Your task to perform on an android device: Open the calendar app, open the side menu, and click the "Day" option Image 0: 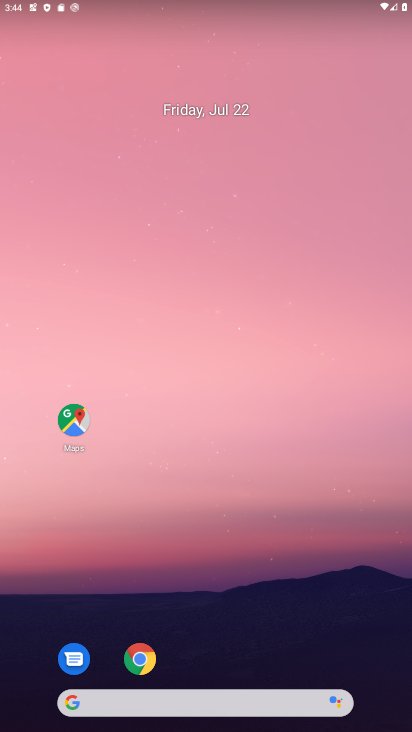
Step 0: click (203, 124)
Your task to perform on an android device: Open the calendar app, open the side menu, and click the "Day" option Image 1: 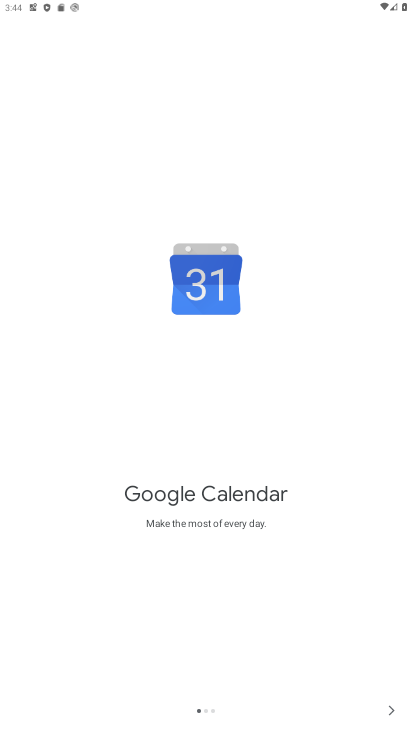
Step 1: click (395, 713)
Your task to perform on an android device: Open the calendar app, open the side menu, and click the "Day" option Image 2: 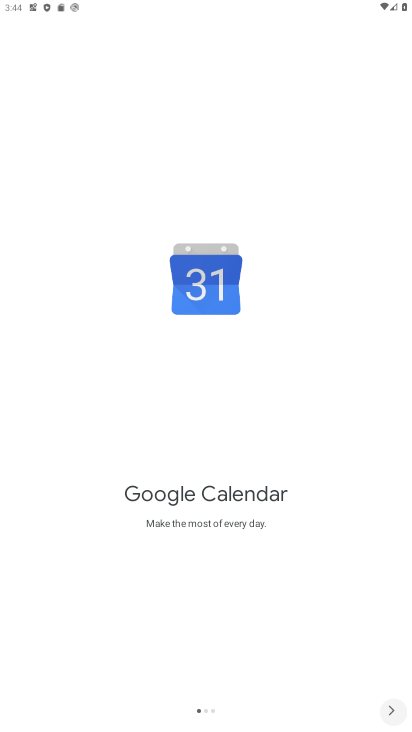
Step 2: click (395, 713)
Your task to perform on an android device: Open the calendar app, open the side menu, and click the "Day" option Image 3: 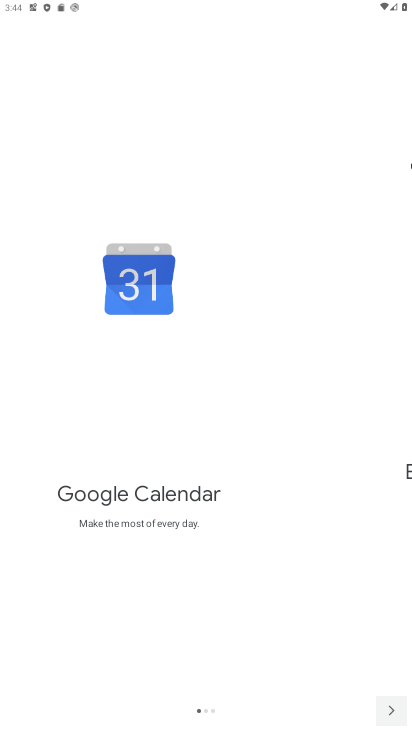
Step 3: click (395, 713)
Your task to perform on an android device: Open the calendar app, open the side menu, and click the "Day" option Image 4: 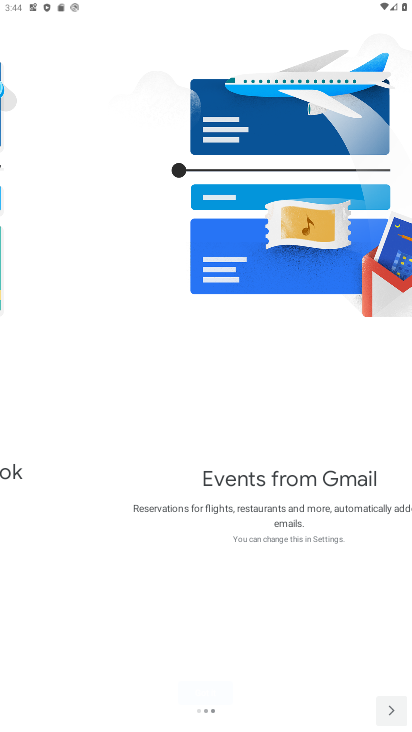
Step 4: click (395, 713)
Your task to perform on an android device: Open the calendar app, open the side menu, and click the "Day" option Image 5: 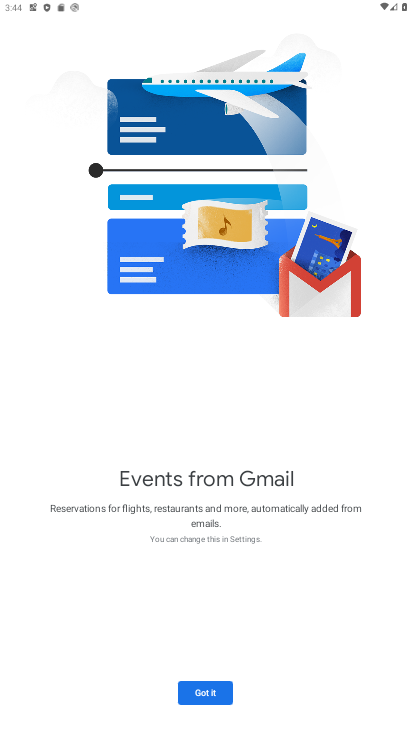
Step 5: click (209, 691)
Your task to perform on an android device: Open the calendar app, open the side menu, and click the "Day" option Image 6: 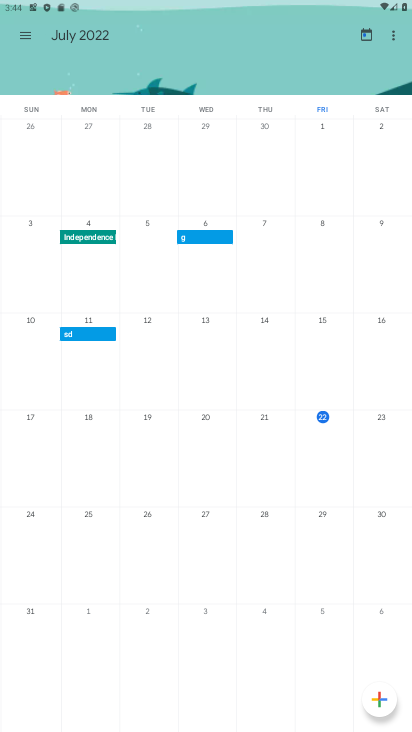
Step 6: click (25, 25)
Your task to perform on an android device: Open the calendar app, open the side menu, and click the "Day" option Image 7: 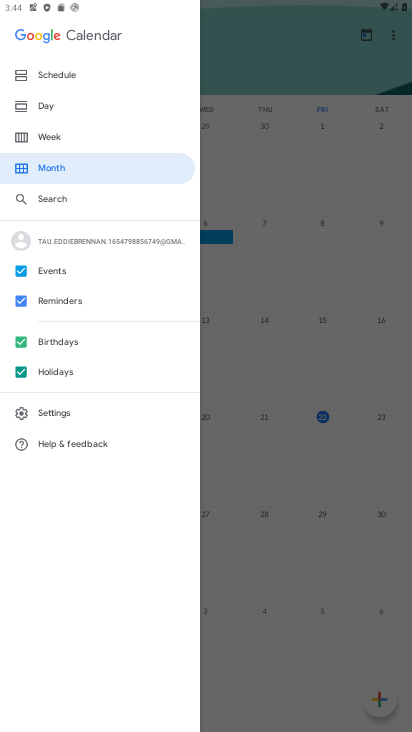
Step 7: click (85, 110)
Your task to perform on an android device: Open the calendar app, open the side menu, and click the "Day" option Image 8: 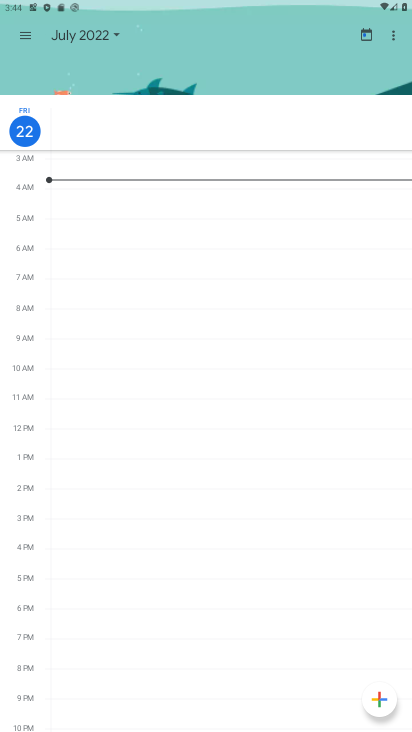
Step 8: task complete